Your task to perform on an android device: change alarm snooze length Image 0: 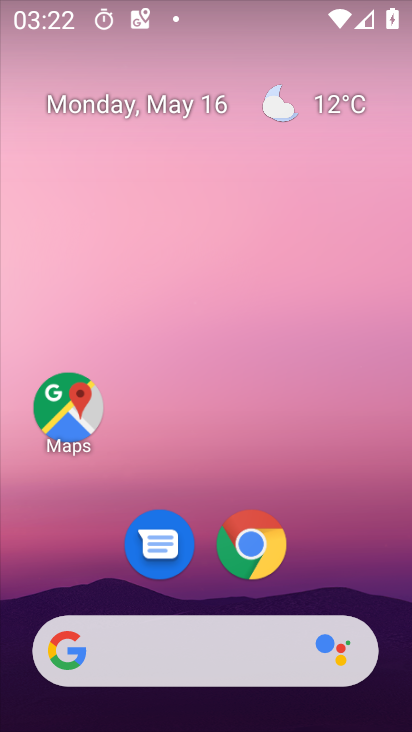
Step 0: drag from (216, 724) to (191, 178)
Your task to perform on an android device: change alarm snooze length Image 1: 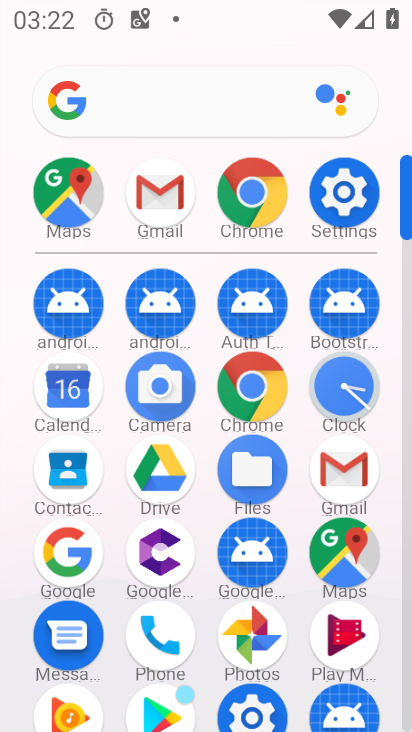
Step 1: click (347, 398)
Your task to perform on an android device: change alarm snooze length Image 2: 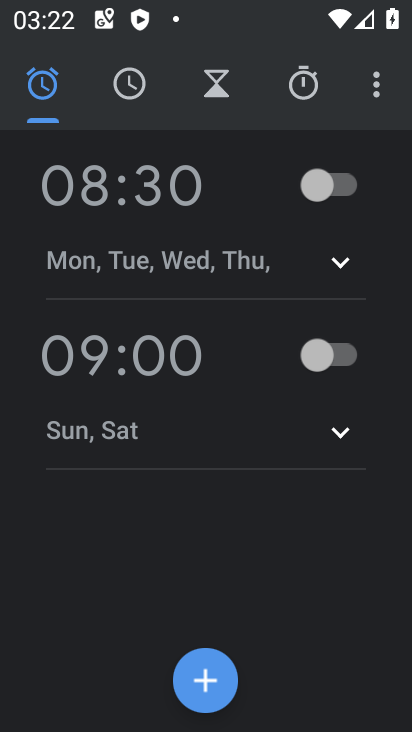
Step 2: click (377, 95)
Your task to perform on an android device: change alarm snooze length Image 3: 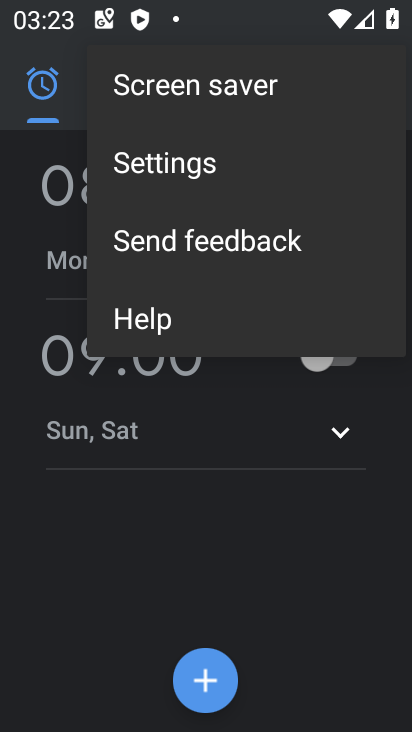
Step 3: click (178, 155)
Your task to perform on an android device: change alarm snooze length Image 4: 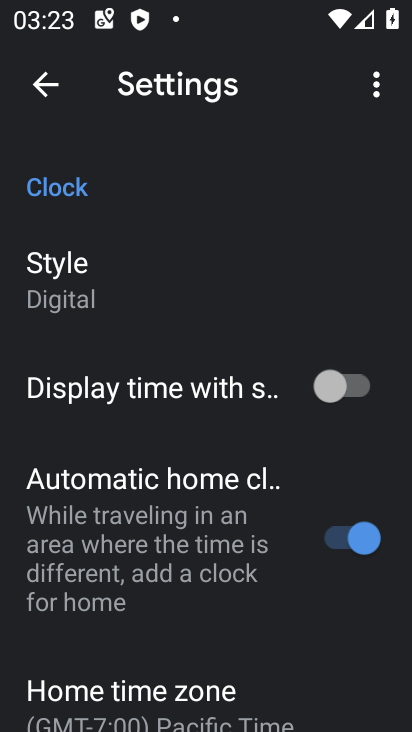
Step 4: drag from (178, 649) to (175, 258)
Your task to perform on an android device: change alarm snooze length Image 5: 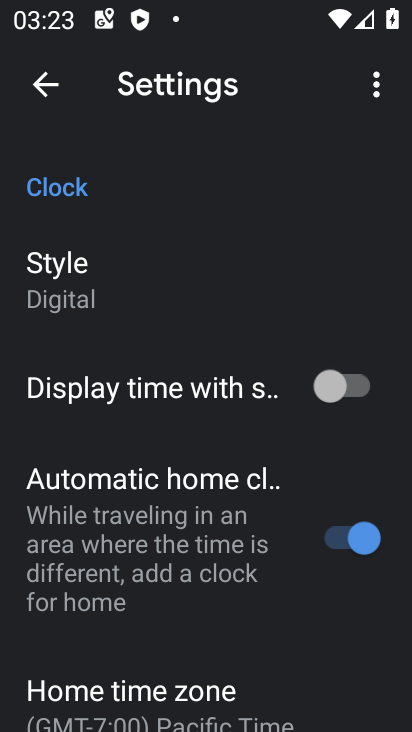
Step 5: drag from (212, 625) to (207, 251)
Your task to perform on an android device: change alarm snooze length Image 6: 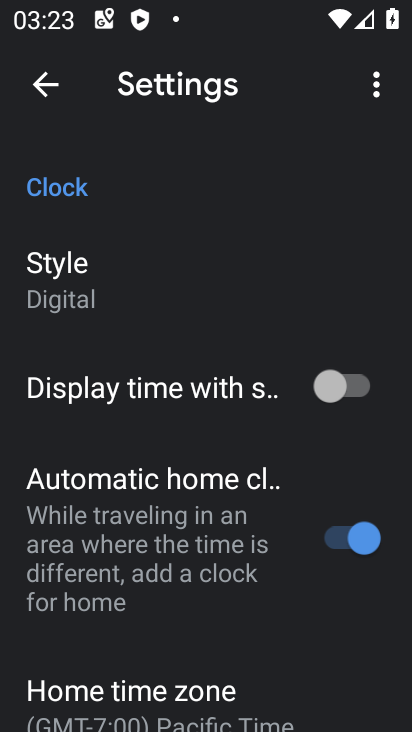
Step 6: drag from (230, 622) to (247, 244)
Your task to perform on an android device: change alarm snooze length Image 7: 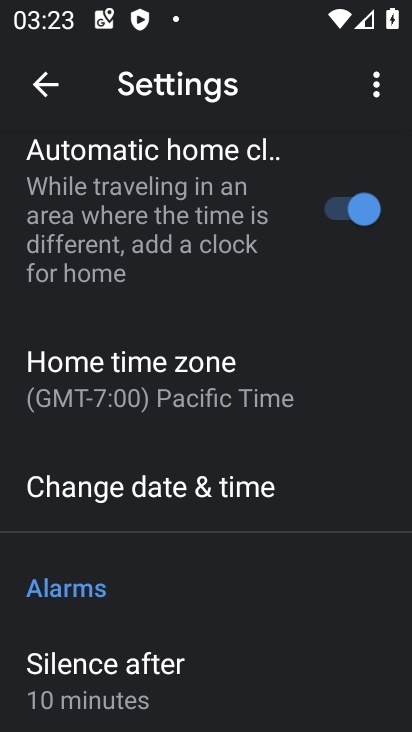
Step 7: drag from (151, 649) to (170, 224)
Your task to perform on an android device: change alarm snooze length Image 8: 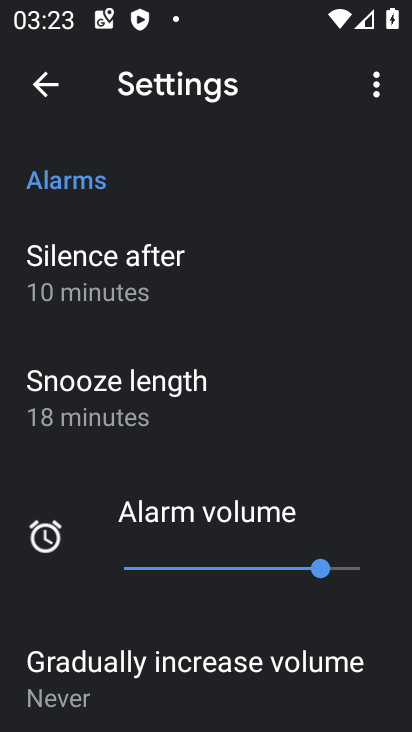
Step 8: click (99, 399)
Your task to perform on an android device: change alarm snooze length Image 9: 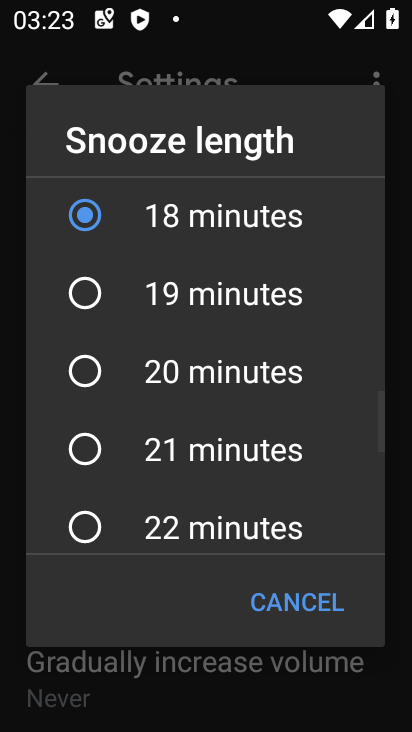
Step 9: click (84, 448)
Your task to perform on an android device: change alarm snooze length Image 10: 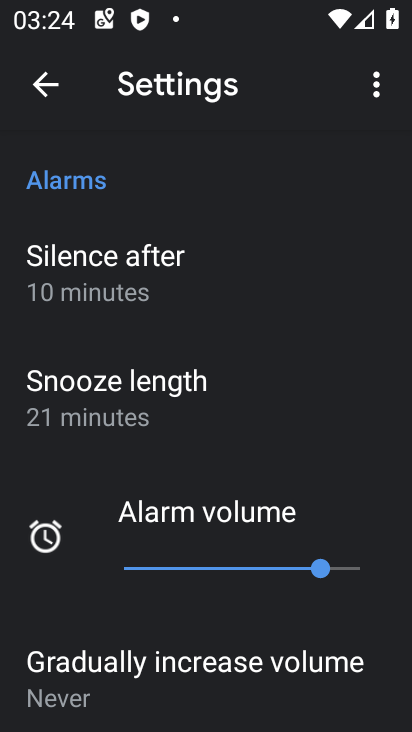
Step 10: task complete